Your task to perform on an android device: search for starred emails in the gmail app Image 0: 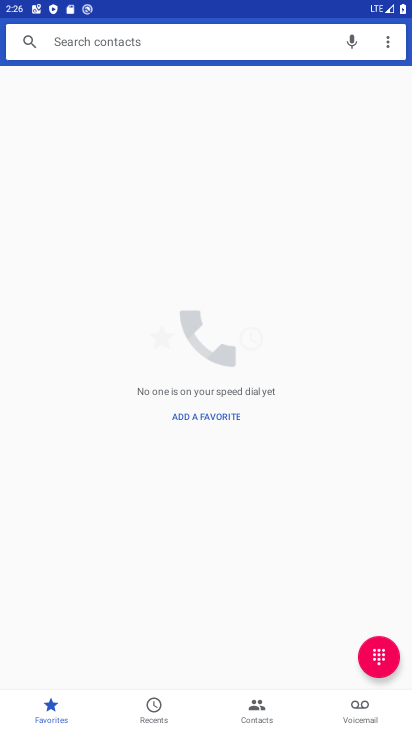
Step 0: press home button
Your task to perform on an android device: search for starred emails in the gmail app Image 1: 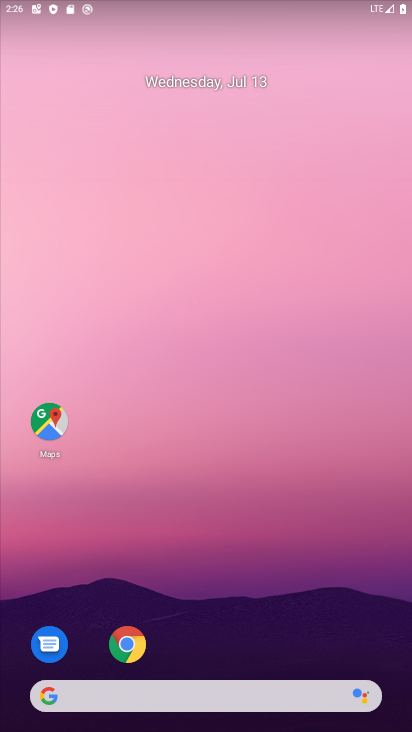
Step 1: drag from (407, 627) to (267, 157)
Your task to perform on an android device: search for starred emails in the gmail app Image 2: 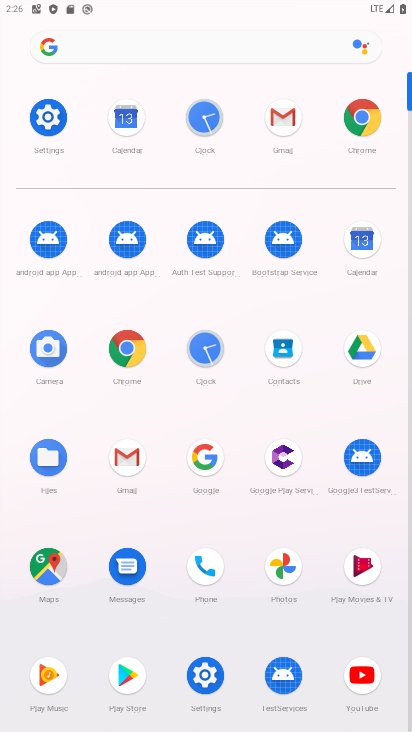
Step 2: click (285, 120)
Your task to perform on an android device: search for starred emails in the gmail app Image 3: 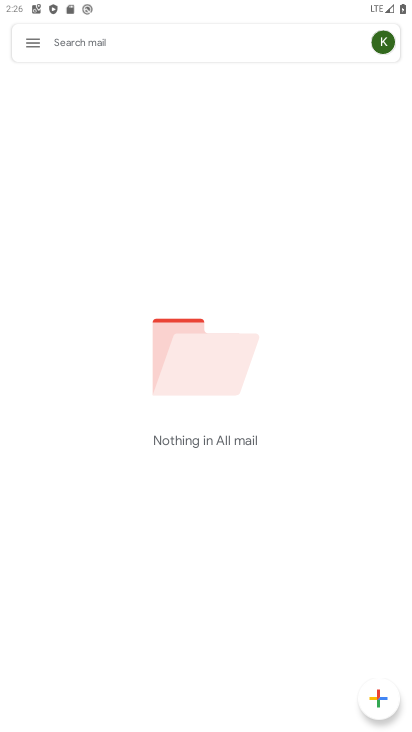
Step 3: click (26, 45)
Your task to perform on an android device: search for starred emails in the gmail app Image 4: 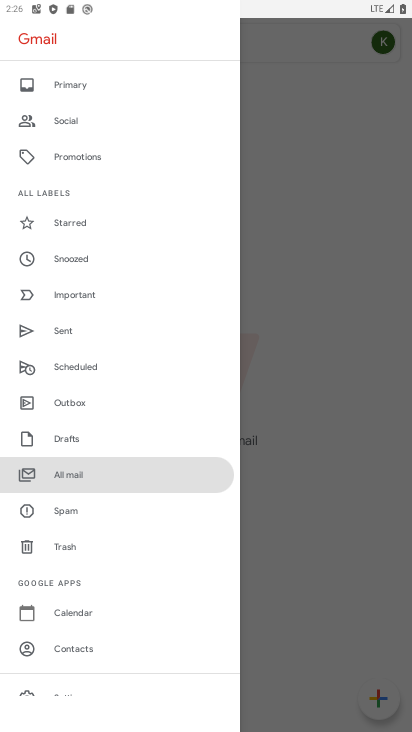
Step 4: click (90, 221)
Your task to perform on an android device: search for starred emails in the gmail app Image 5: 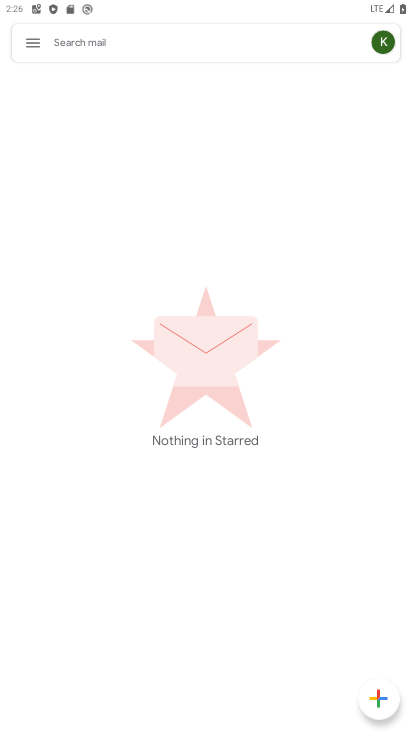
Step 5: task complete